Your task to perform on an android device: Open the map Image 0: 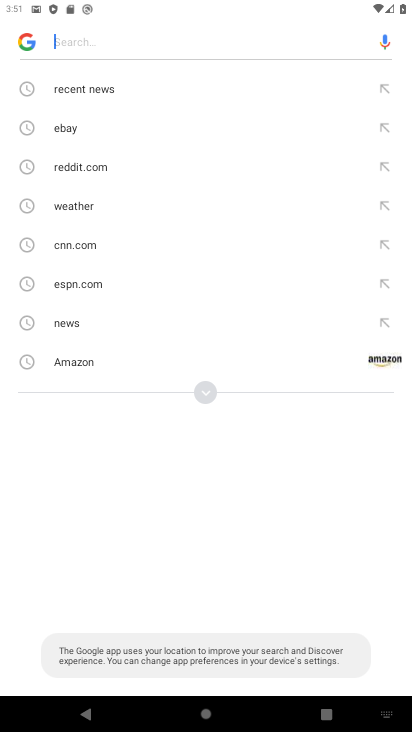
Step 0: press back button
Your task to perform on an android device: Open the map Image 1: 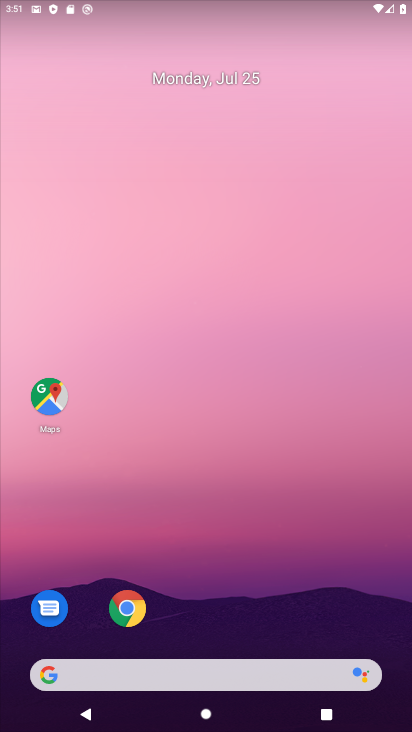
Step 1: drag from (229, 636) to (275, 125)
Your task to perform on an android device: Open the map Image 2: 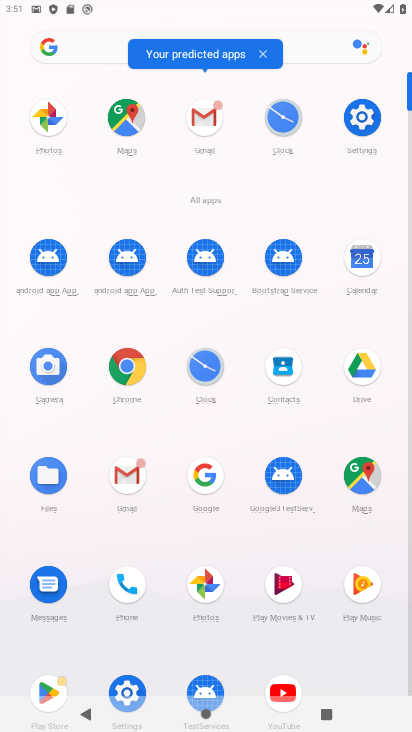
Step 2: click (362, 489)
Your task to perform on an android device: Open the map Image 3: 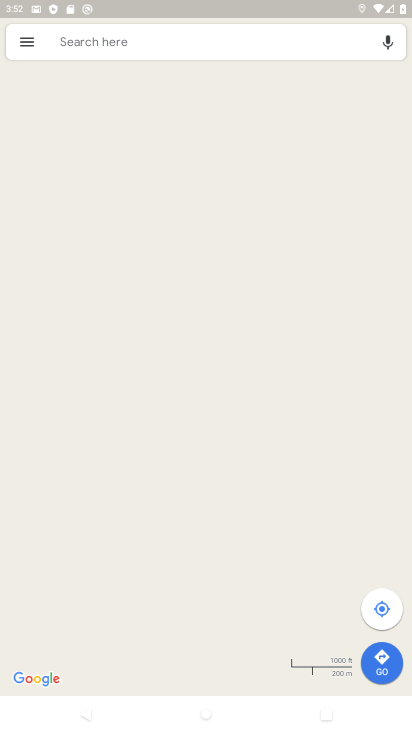
Step 3: task complete